Your task to perform on an android device: change timer sound Image 0: 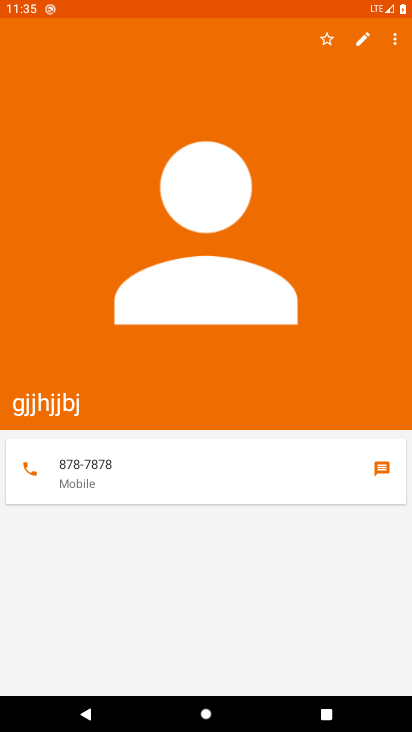
Step 0: press home button
Your task to perform on an android device: change timer sound Image 1: 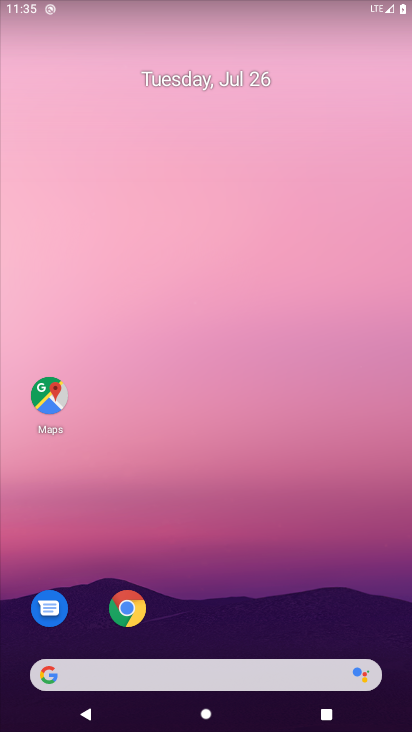
Step 1: drag from (277, 587) to (279, 131)
Your task to perform on an android device: change timer sound Image 2: 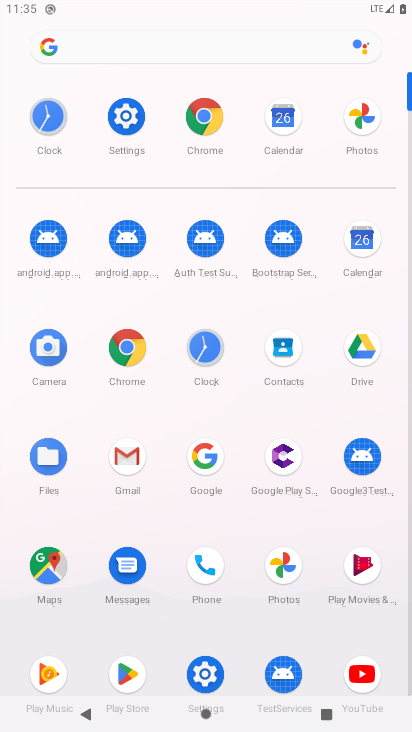
Step 2: click (212, 341)
Your task to perform on an android device: change timer sound Image 3: 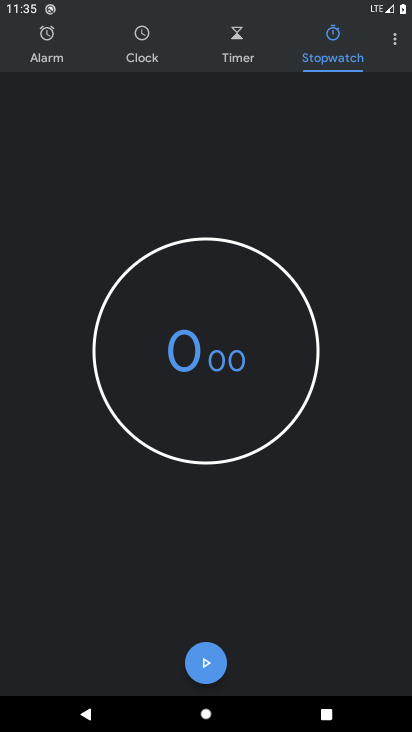
Step 3: click (396, 34)
Your task to perform on an android device: change timer sound Image 4: 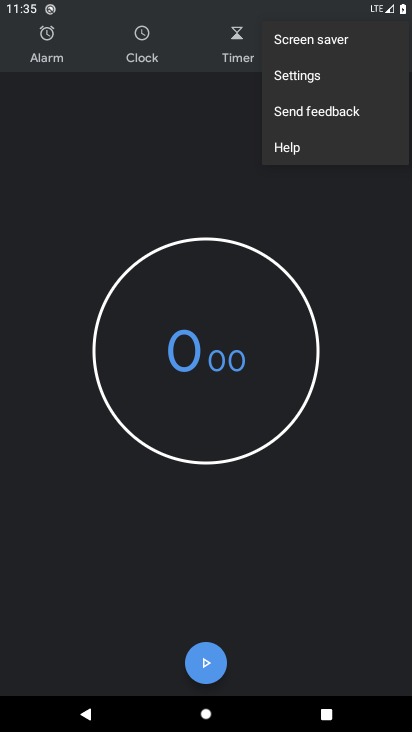
Step 4: click (274, 73)
Your task to perform on an android device: change timer sound Image 5: 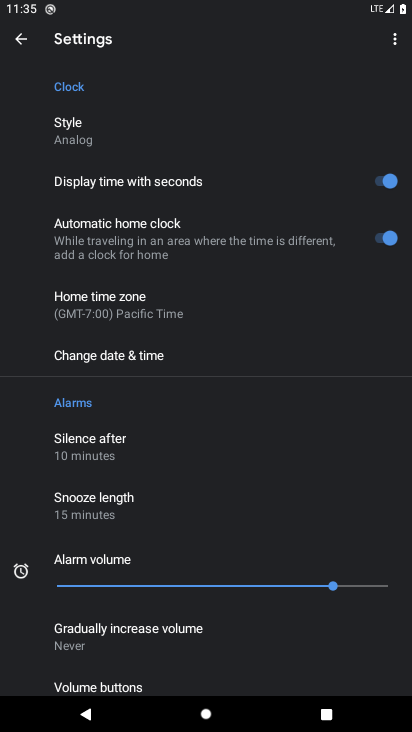
Step 5: drag from (317, 509) to (296, 243)
Your task to perform on an android device: change timer sound Image 6: 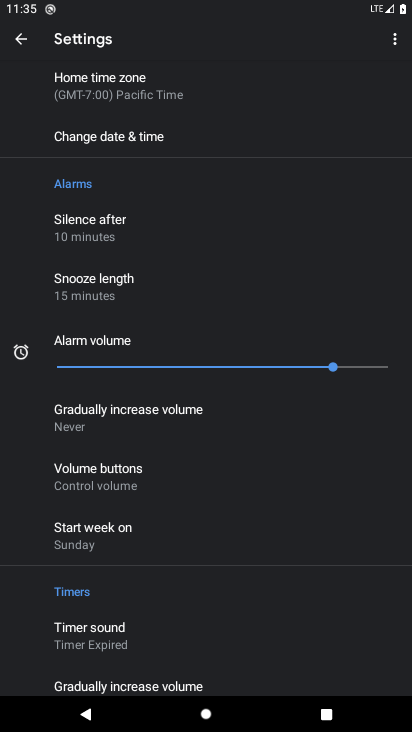
Step 6: click (131, 644)
Your task to perform on an android device: change timer sound Image 7: 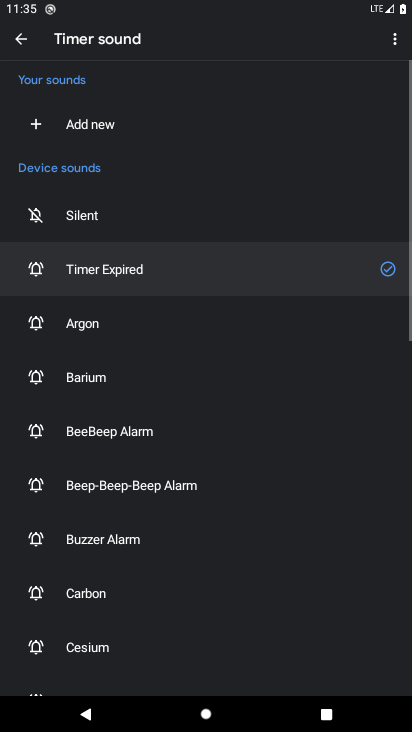
Step 7: click (92, 325)
Your task to perform on an android device: change timer sound Image 8: 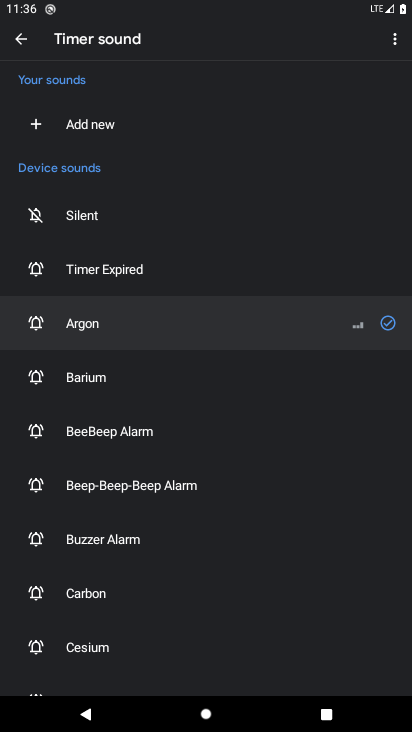
Step 8: task complete